Your task to perform on an android device: change the clock display to show seconds Image 0: 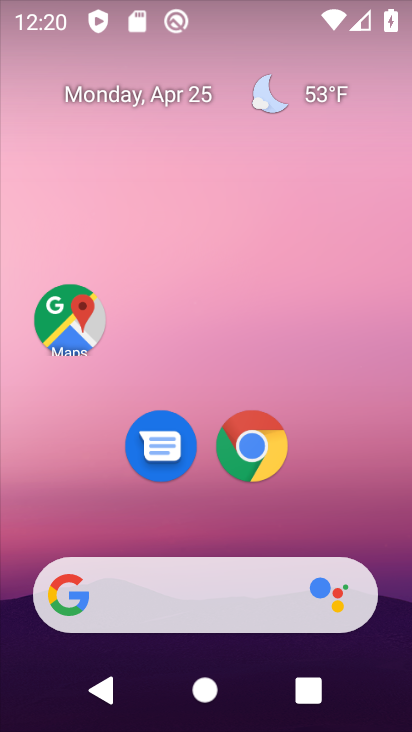
Step 0: drag from (197, 526) to (219, 14)
Your task to perform on an android device: change the clock display to show seconds Image 1: 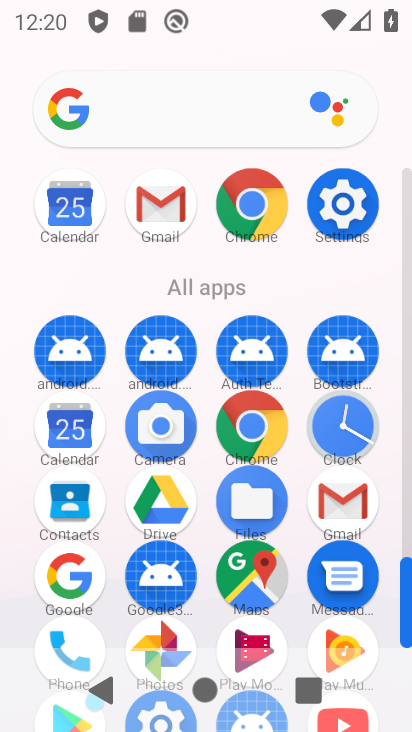
Step 1: click (361, 437)
Your task to perform on an android device: change the clock display to show seconds Image 2: 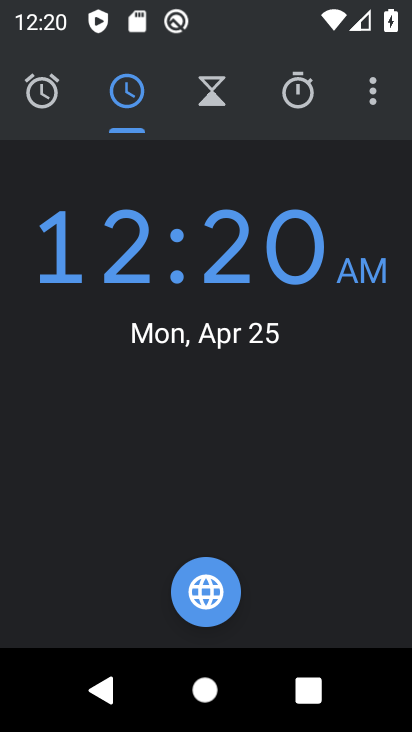
Step 2: click (366, 90)
Your task to perform on an android device: change the clock display to show seconds Image 3: 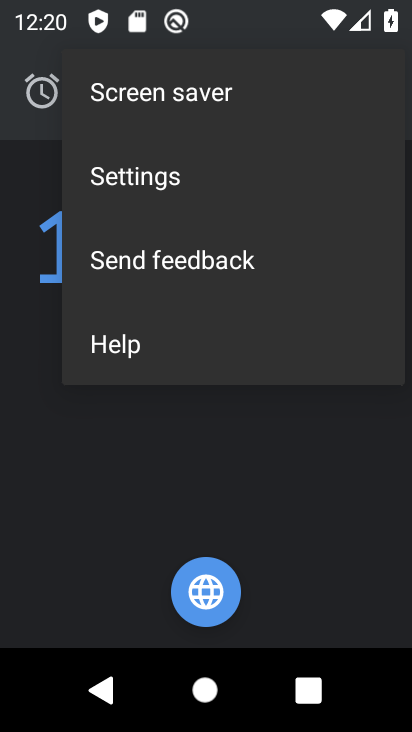
Step 3: click (145, 187)
Your task to perform on an android device: change the clock display to show seconds Image 4: 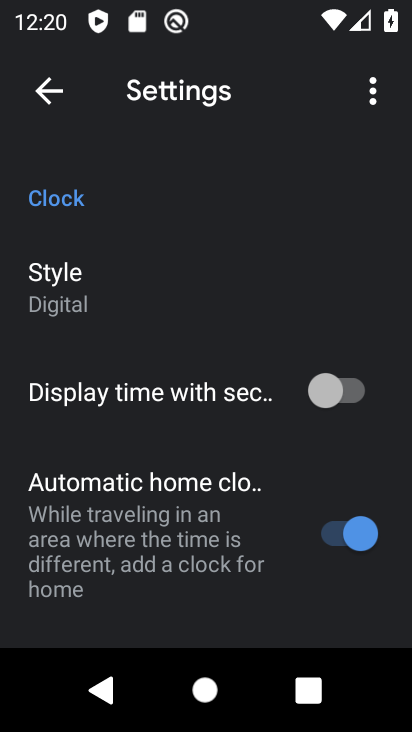
Step 4: click (86, 294)
Your task to perform on an android device: change the clock display to show seconds Image 5: 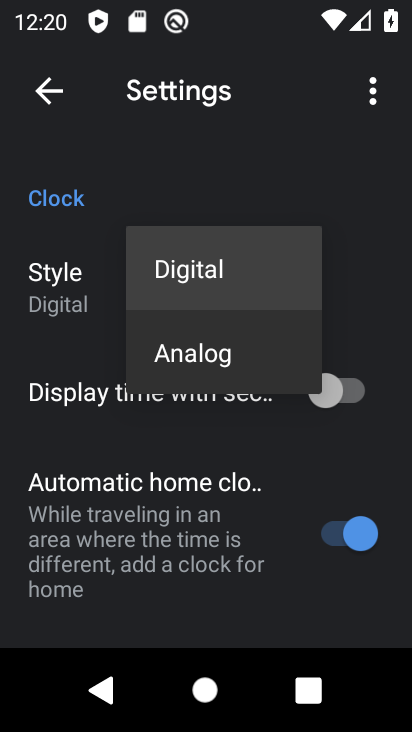
Step 5: click (173, 350)
Your task to perform on an android device: change the clock display to show seconds Image 6: 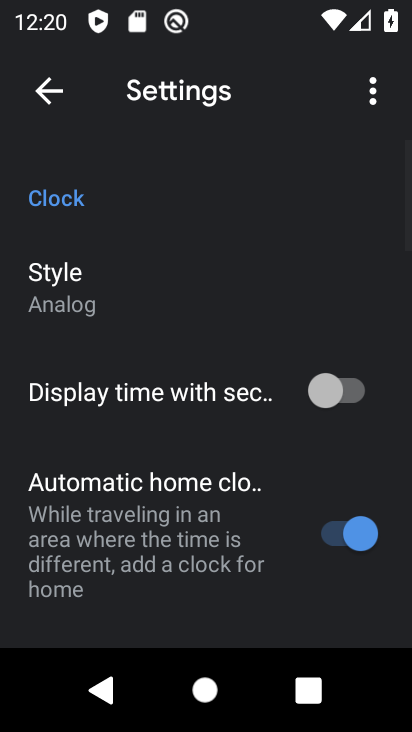
Step 6: click (366, 398)
Your task to perform on an android device: change the clock display to show seconds Image 7: 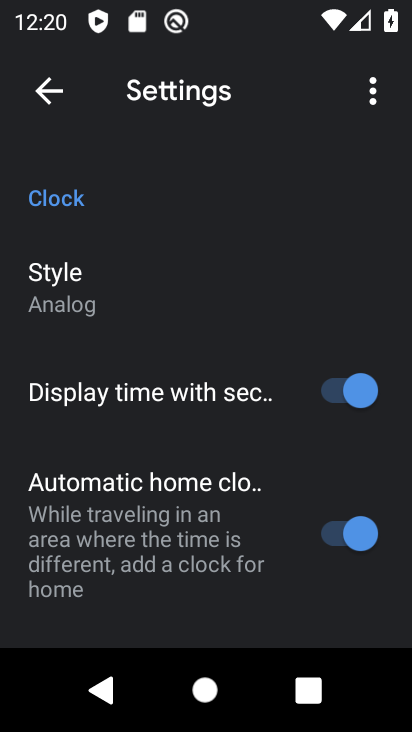
Step 7: task complete